Your task to perform on an android device: open sync settings in chrome Image 0: 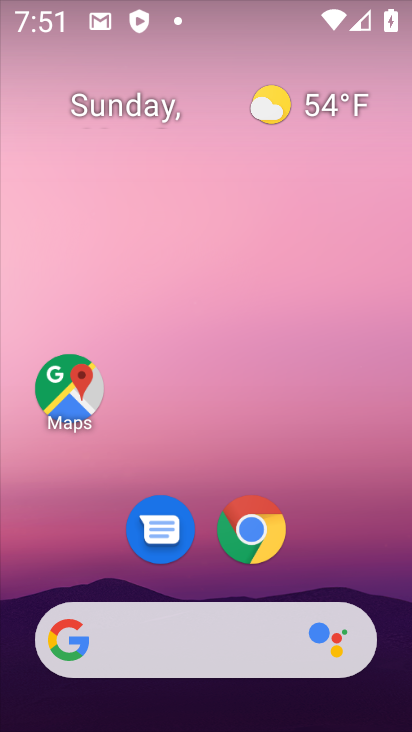
Step 0: click (272, 520)
Your task to perform on an android device: open sync settings in chrome Image 1: 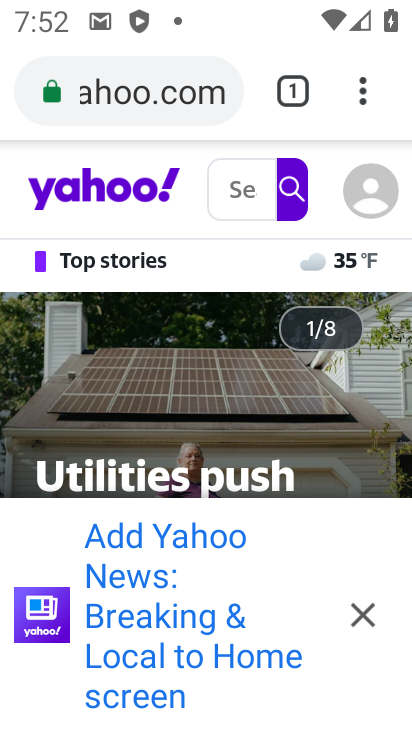
Step 1: click (359, 107)
Your task to perform on an android device: open sync settings in chrome Image 2: 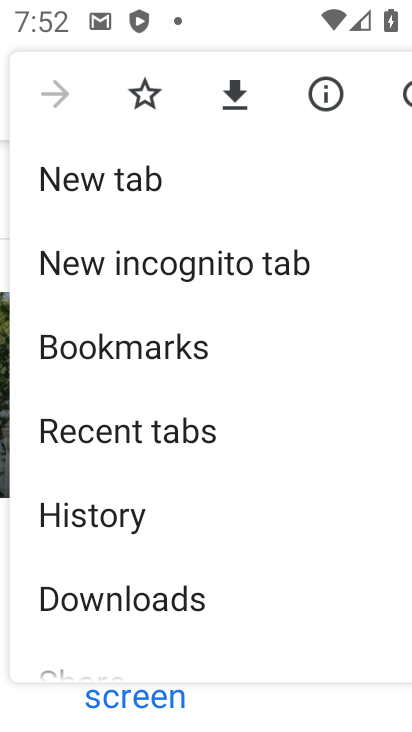
Step 2: drag from (127, 609) to (208, 296)
Your task to perform on an android device: open sync settings in chrome Image 3: 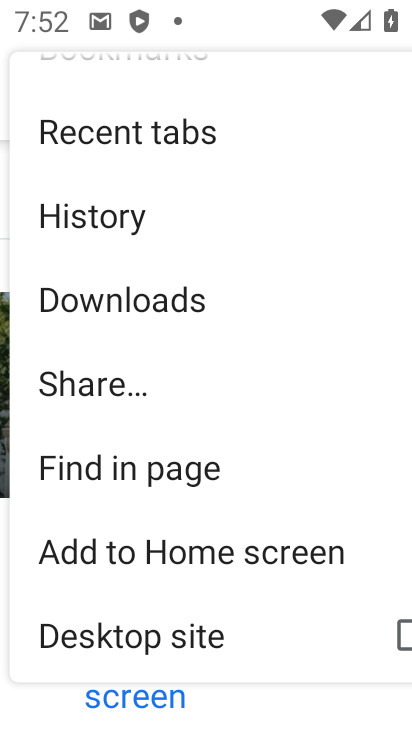
Step 3: drag from (122, 587) to (175, 276)
Your task to perform on an android device: open sync settings in chrome Image 4: 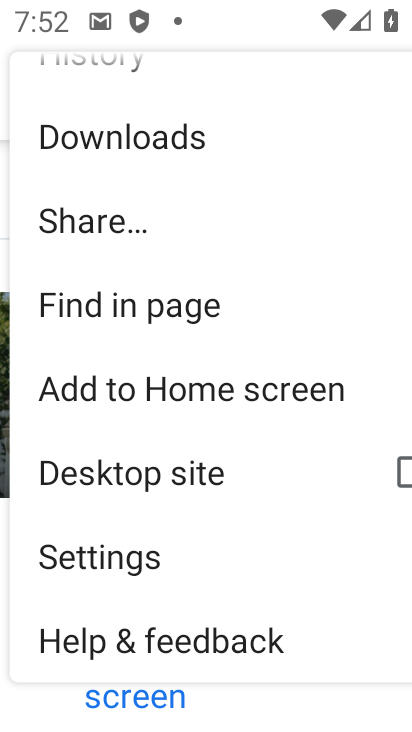
Step 4: click (114, 564)
Your task to perform on an android device: open sync settings in chrome Image 5: 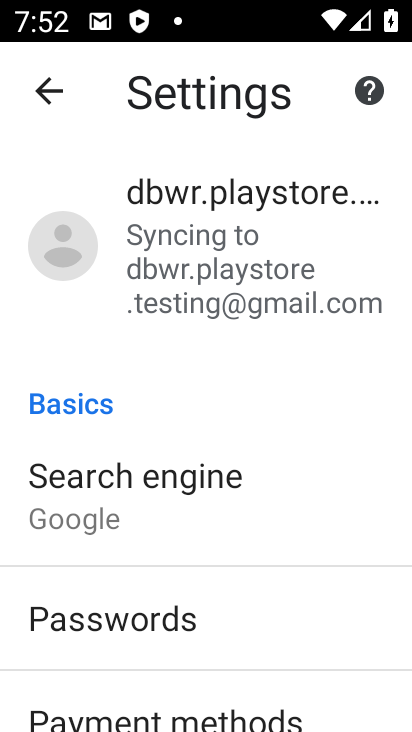
Step 5: click (230, 278)
Your task to perform on an android device: open sync settings in chrome Image 6: 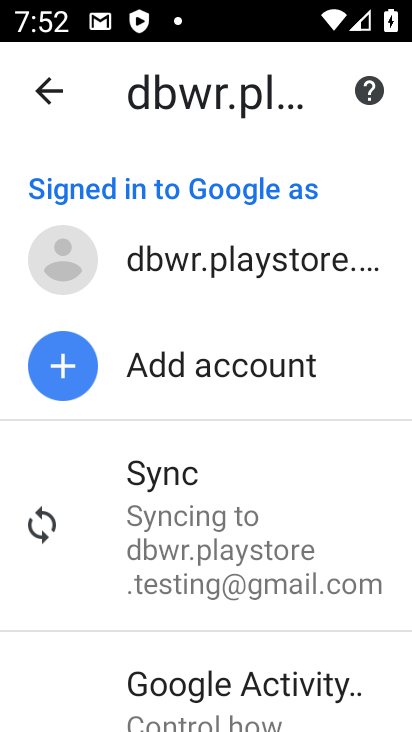
Step 6: click (196, 526)
Your task to perform on an android device: open sync settings in chrome Image 7: 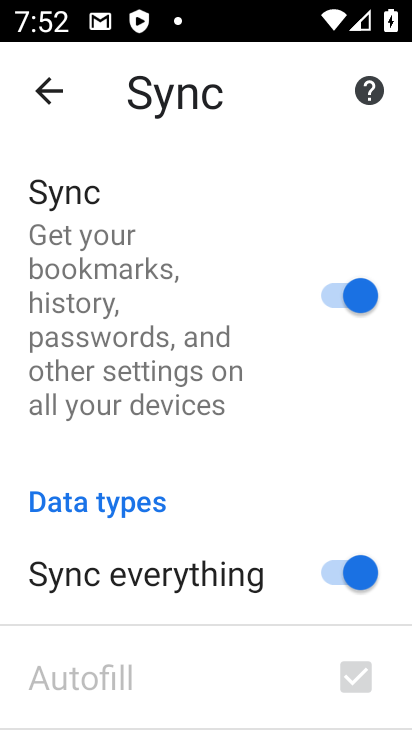
Step 7: task complete